Your task to perform on an android device: find photos in the google photos app Image 0: 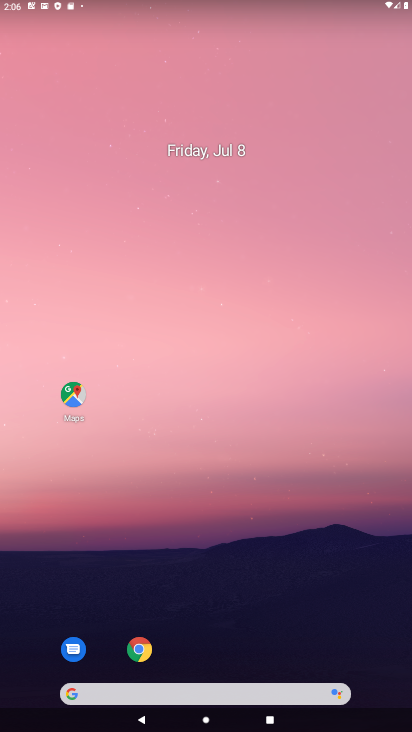
Step 0: drag from (372, 569) to (323, 88)
Your task to perform on an android device: find photos in the google photos app Image 1: 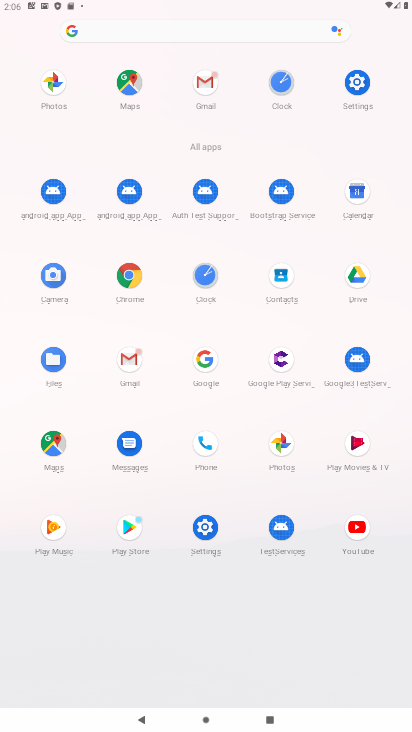
Step 1: click (280, 442)
Your task to perform on an android device: find photos in the google photos app Image 2: 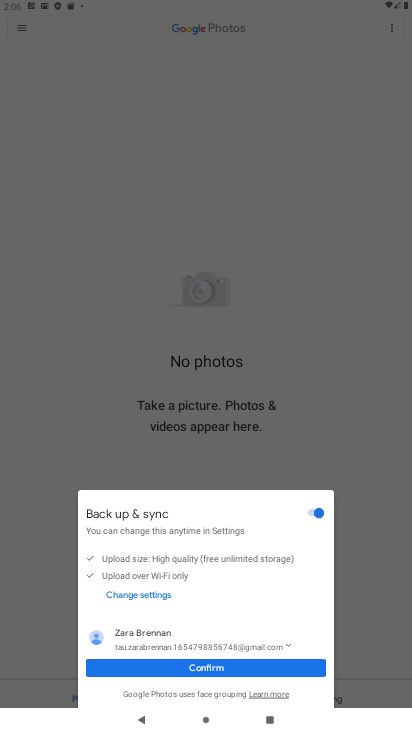
Step 2: click (202, 667)
Your task to perform on an android device: find photos in the google photos app Image 3: 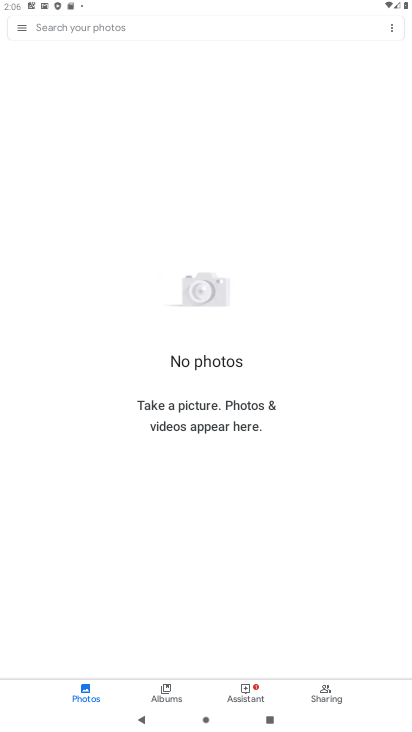
Step 3: task complete